Your task to perform on an android device: turn off javascript in the chrome app Image 0: 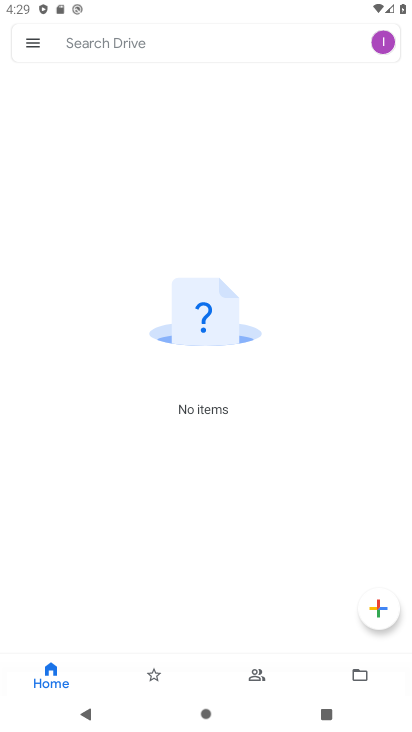
Step 0: press home button
Your task to perform on an android device: turn off javascript in the chrome app Image 1: 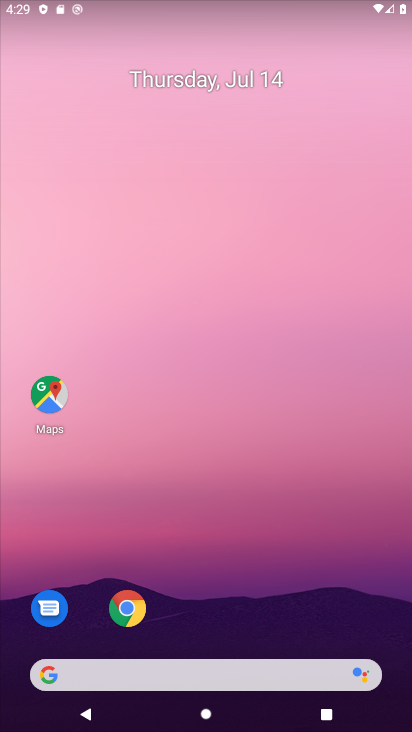
Step 1: click (121, 608)
Your task to perform on an android device: turn off javascript in the chrome app Image 2: 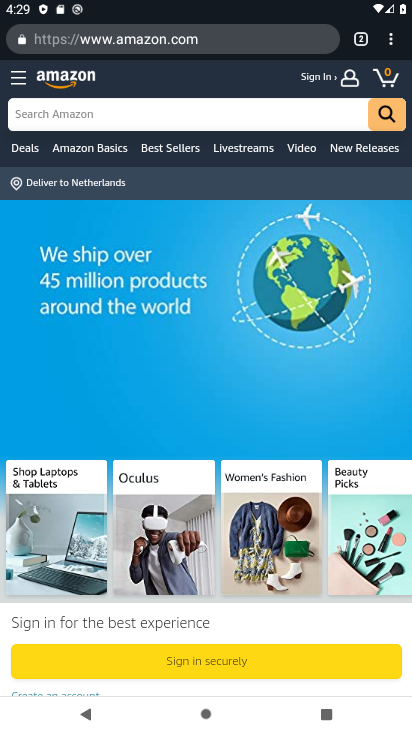
Step 2: click (390, 40)
Your task to perform on an android device: turn off javascript in the chrome app Image 3: 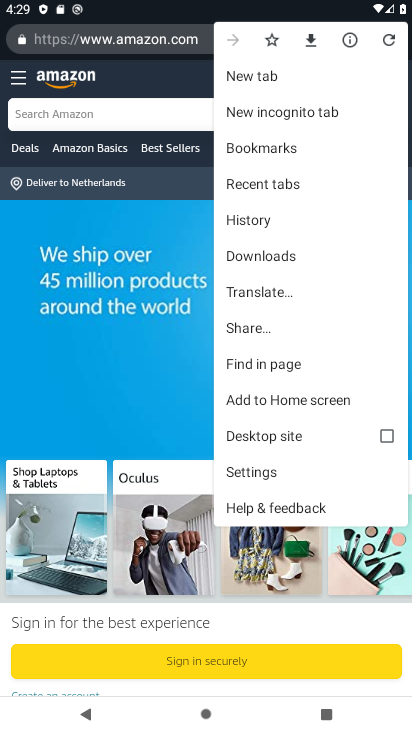
Step 3: click (262, 476)
Your task to perform on an android device: turn off javascript in the chrome app Image 4: 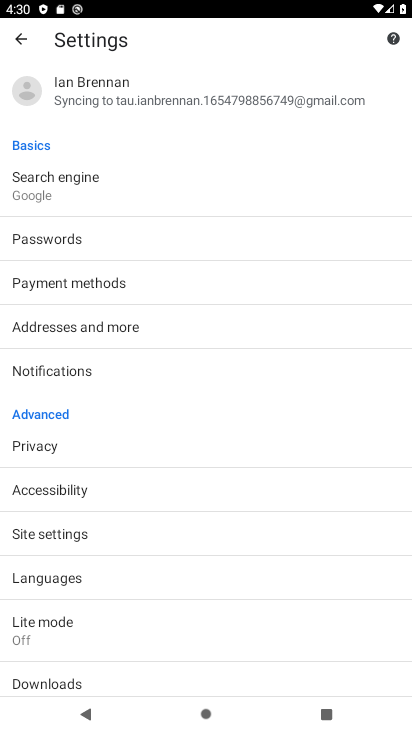
Step 4: click (72, 529)
Your task to perform on an android device: turn off javascript in the chrome app Image 5: 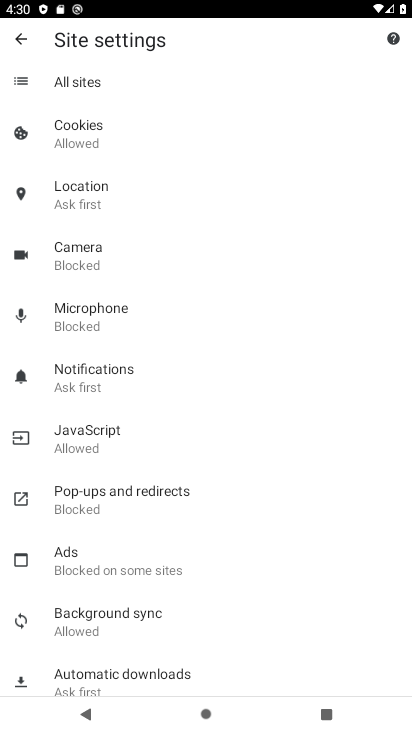
Step 5: click (110, 451)
Your task to perform on an android device: turn off javascript in the chrome app Image 6: 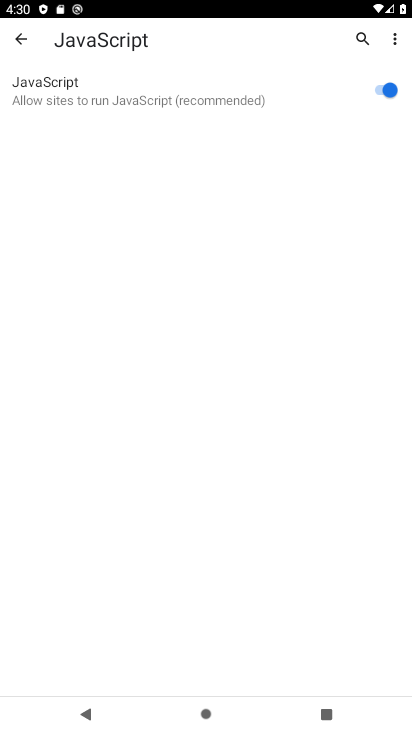
Step 6: click (368, 87)
Your task to perform on an android device: turn off javascript in the chrome app Image 7: 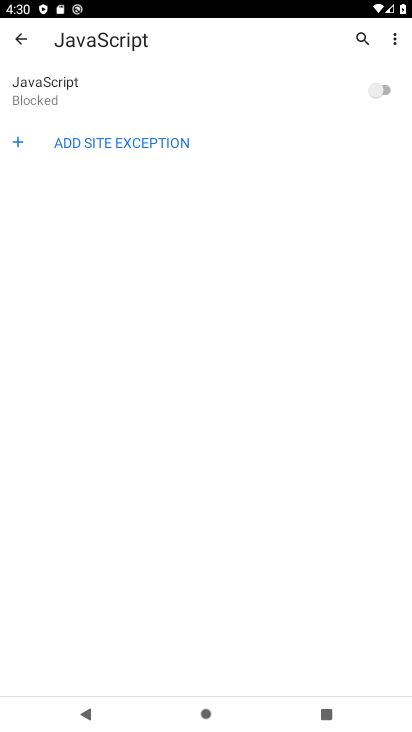
Step 7: task complete